Your task to perform on an android device: Open Google Chrome and open the bookmarks view Image 0: 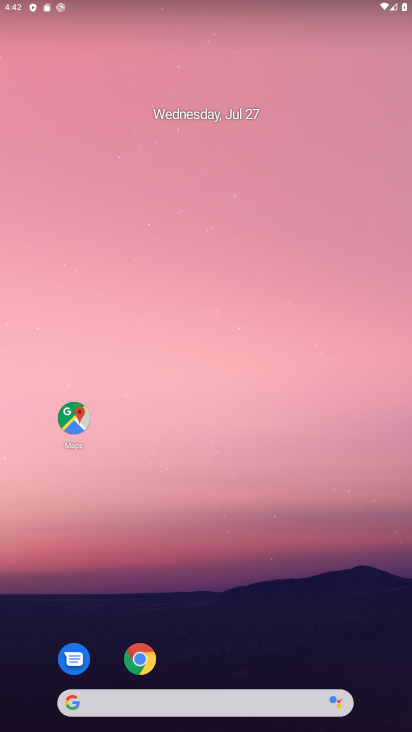
Step 0: drag from (334, 565) to (373, 32)
Your task to perform on an android device: Open Google Chrome and open the bookmarks view Image 1: 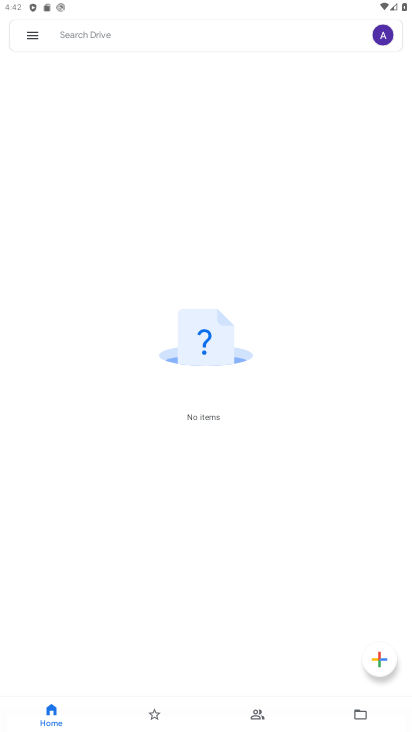
Step 1: press home button
Your task to perform on an android device: Open Google Chrome and open the bookmarks view Image 2: 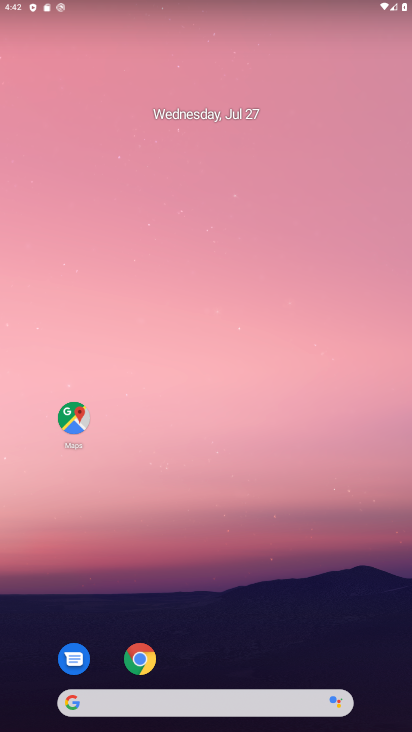
Step 2: drag from (240, 619) to (252, 456)
Your task to perform on an android device: Open Google Chrome and open the bookmarks view Image 3: 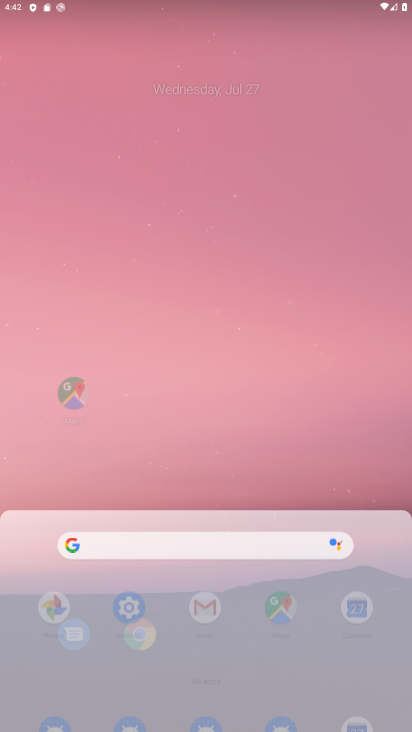
Step 3: drag from (245, 254) to (232, 97)
Your task to perform on an android device: Open Google Chrome and open the bookmarks view Image 4: 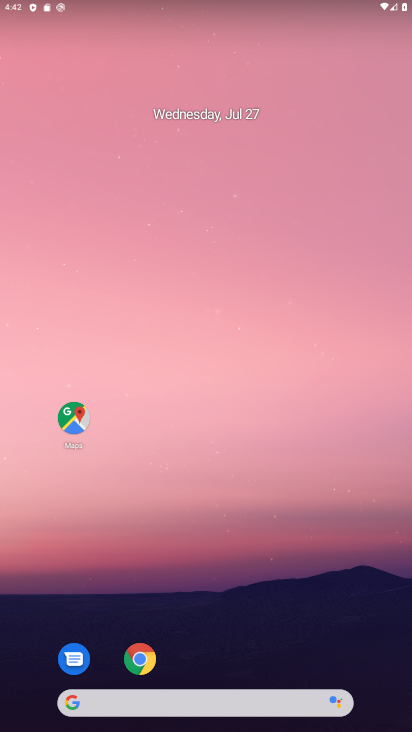
Step 4: drag from (260, 640) to (305, 54)
Your task to perform on an android device: Open Google Chrome and open the bookmarks view Image 5: 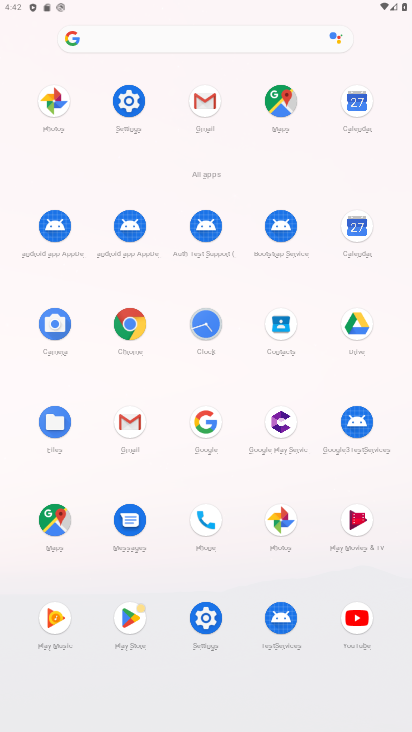
Step 5: click (124, 315)
Your task to perform on an android device: Open Google Chrome and open the bookmarks view Image 6: 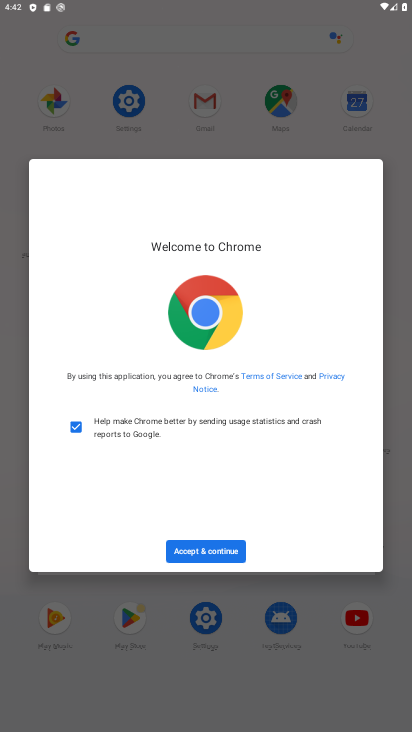
Step 6: click (210, 546)
Your task to perform on an android device: Open Google Chrome and open the bookmarks view Image 7: 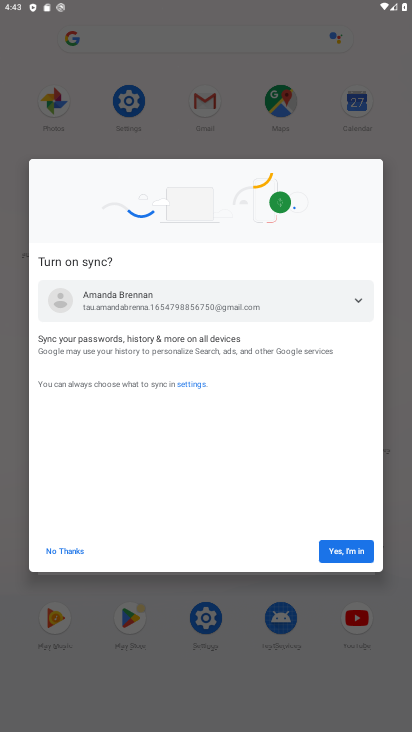
Step 7: click (343, 553)
Your task to perform on an android device: Open Google Chrome and open the bookmarks view Image 8: 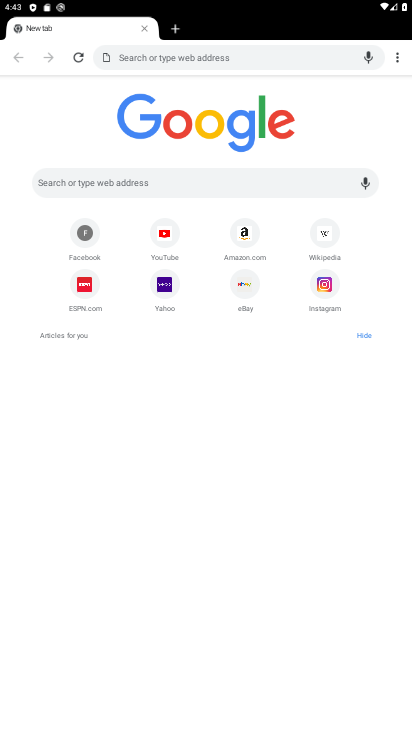
Step 8: drag from (397, 53) to (271, 258)
Your task to perform on an android device: Open Google Chrome and open the bookmarks view Image 9: 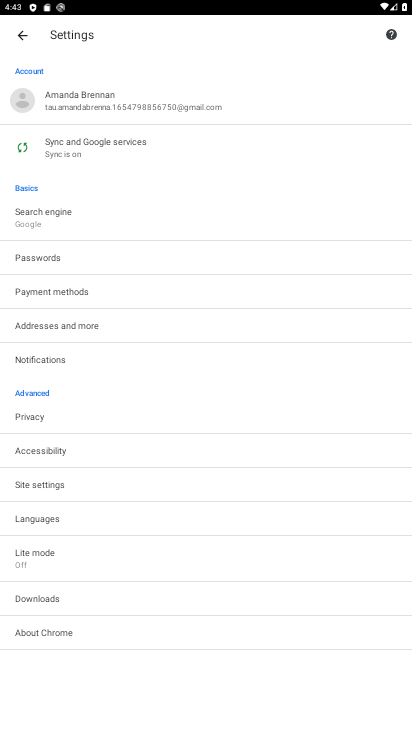
Step 9: click (13, 33)
Your task to perform on an android device: Open Google Chrome and open the bookmarks view Image 10: 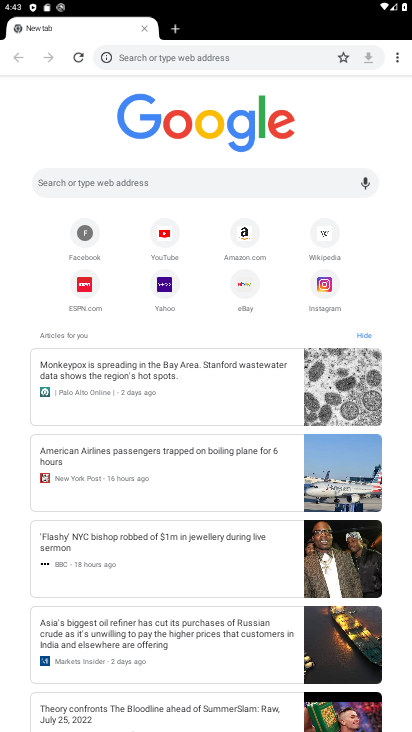
Step 10: task complete